Your task to perform on an android device: turn on translation in the chrome app Image 0: 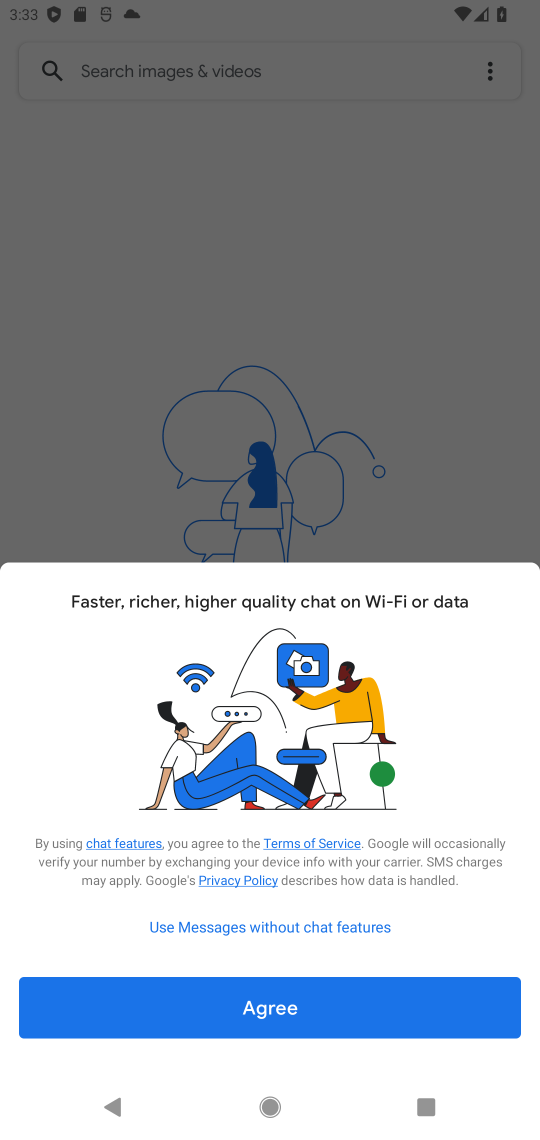
Step 0: press home button
Your task to perform on an android device: turn on translation in the chrome app Image 1: 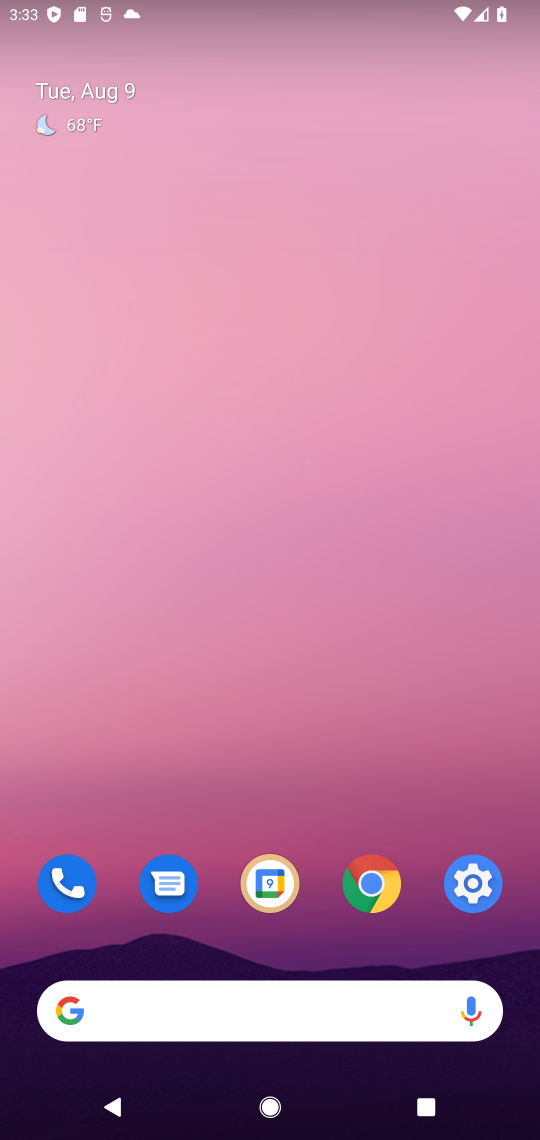
Step 1: click (381, 885)
Your task to perform on an android device: turn on translation in the chrome app Image 2: 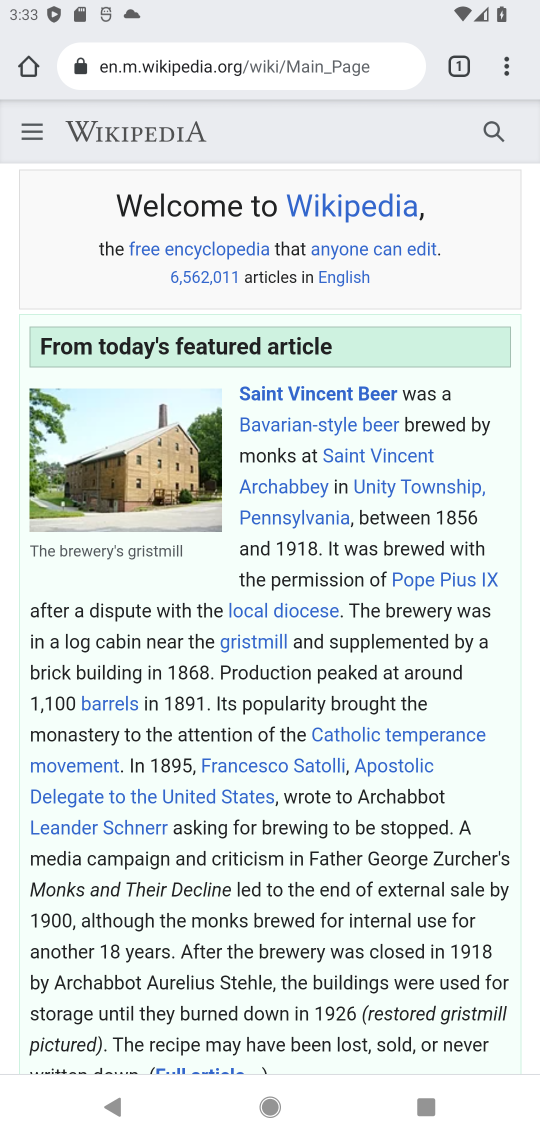
Step 2: click (500, 79)
Your task to perform on an android device: turn on translation in the chrome app Image 3: 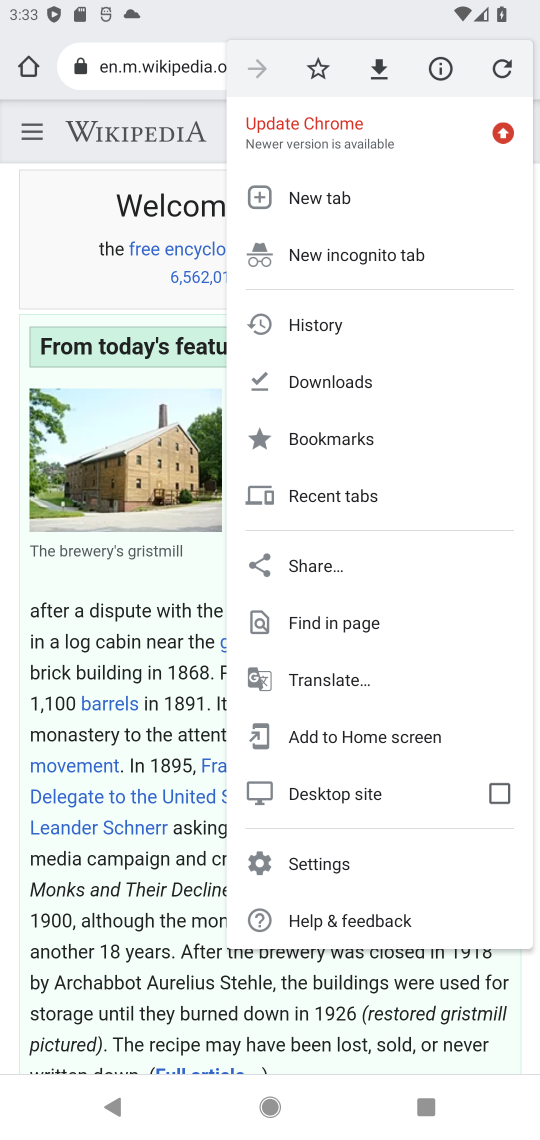
Step 3: click (332, 857)
Your task to perform on an android device: turn on translation in the chrome app Image 4: 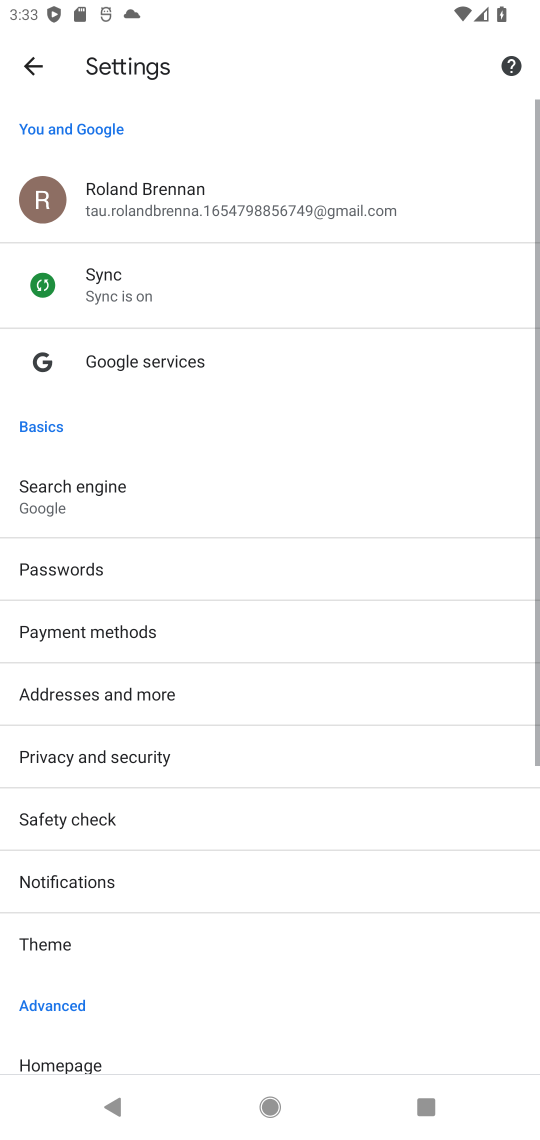
Step 4: drag from (332, 859) to (299, 516)
Your task to perform on an android device: turn on translation in the chrome app Image 5: 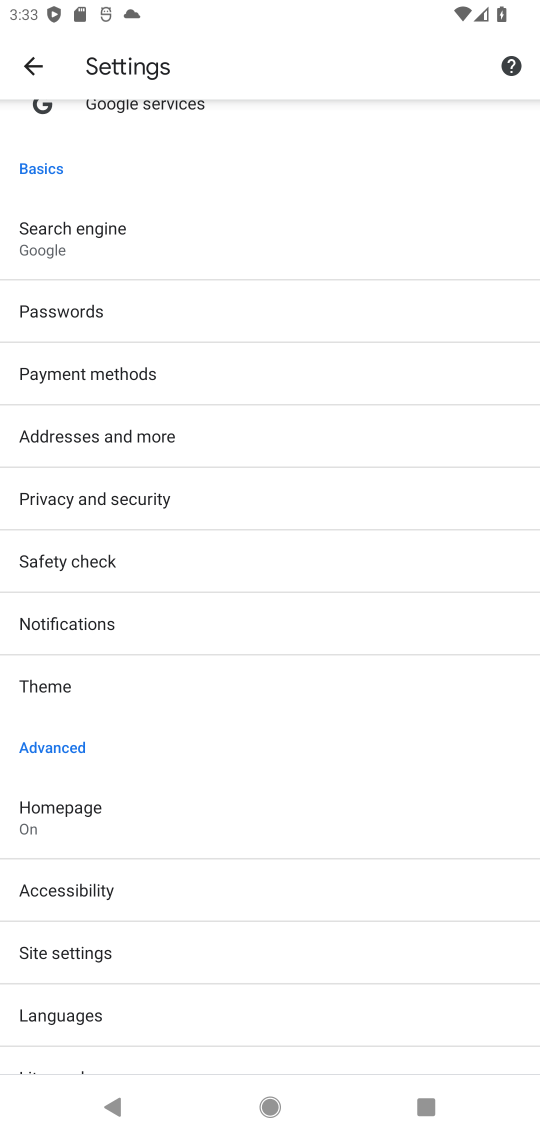
Step 5: click (115, 1019)
Your task to perform on an android device: turn on translation in the chrome app Image 6: 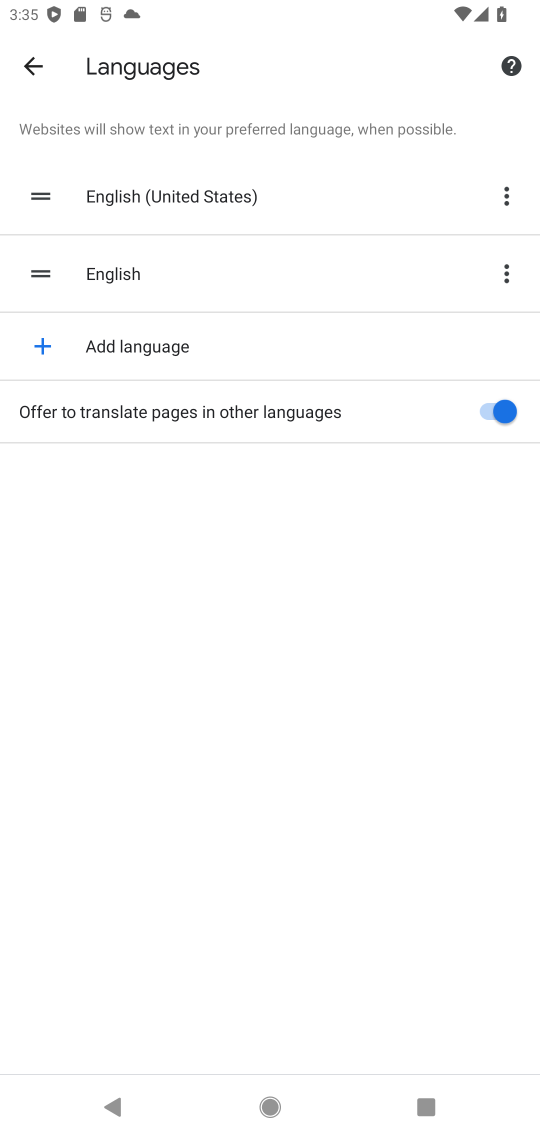
Step 6: task complete